Your task to perform on an android device: move a message to another label in the gmail app Image 0: 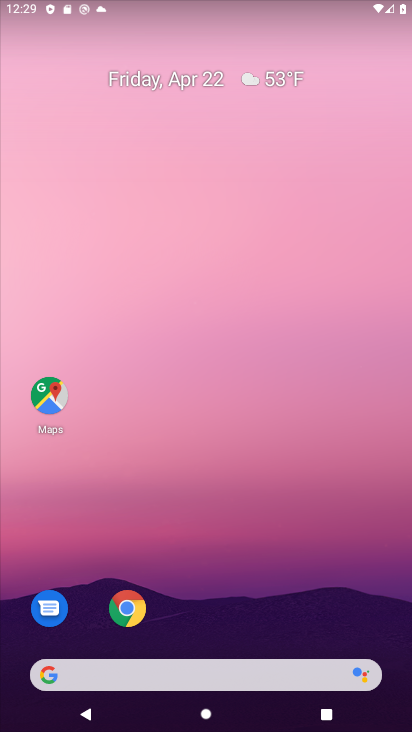
Step 0: drag from (314, 635) to (216, 25)
Your task to perform on an android device: move a message to another label in the gmail app Image 1: 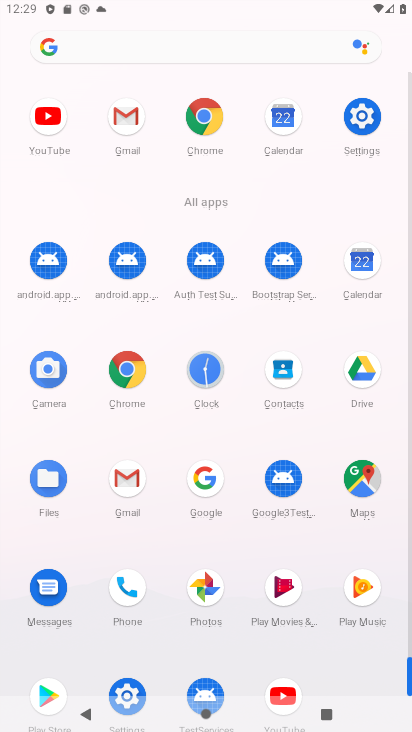
Step 1: click (128, 124)
Your task to perform on an android device: move a message to another label in the gmail app Image 2: 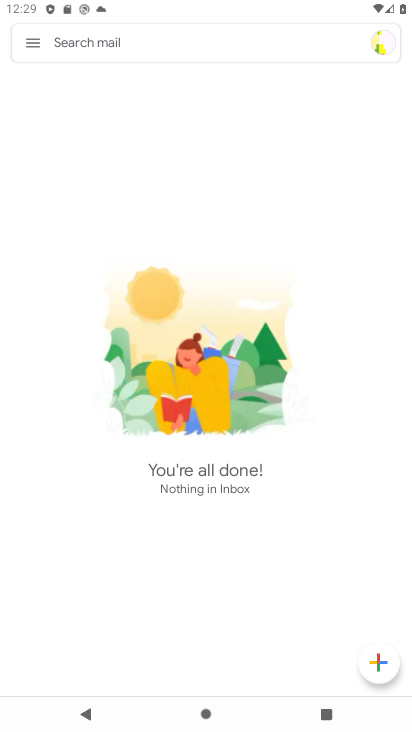
Step 2: click (33, 48)
Your task to perform on an android device: move a message to another label in the gmail app Image 3: 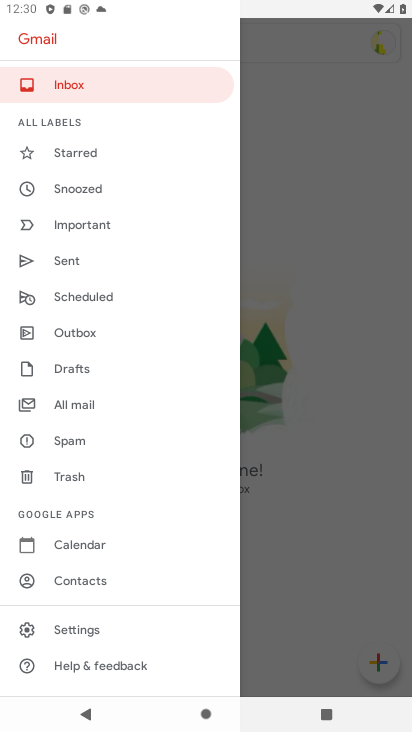
Step 3: click (90, 398)
Your task to perform on an android device: move a message to another label in the gmail app Image 4: 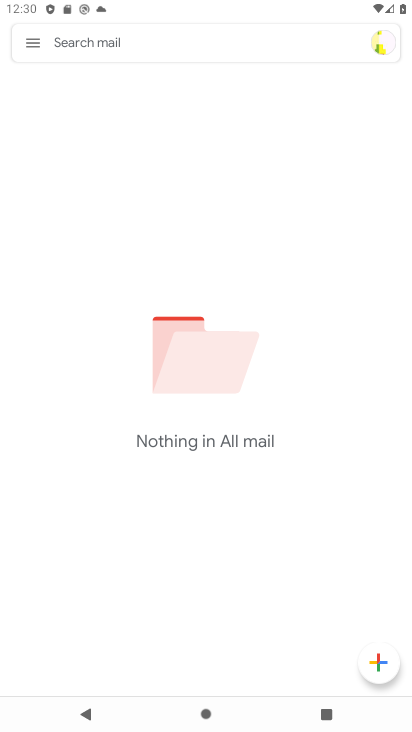
Step 4: task complete